Your task to perform on an android device: change the upload size in google photos Image 0: 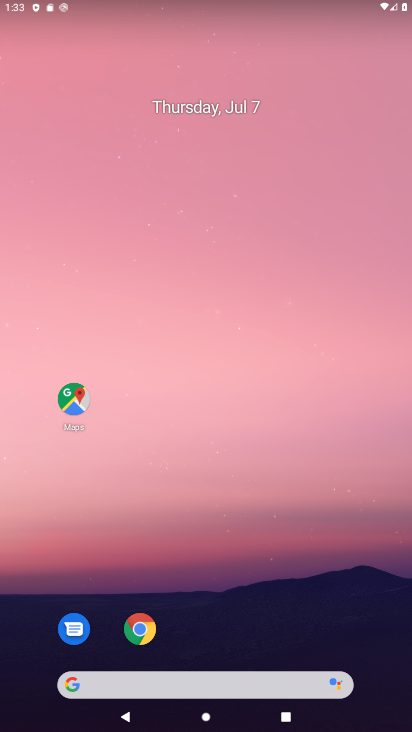
Step 0: drag from (335, 646) to (378, 147)
Your task to perform on an android device: change the upload size in google photos Image 1: 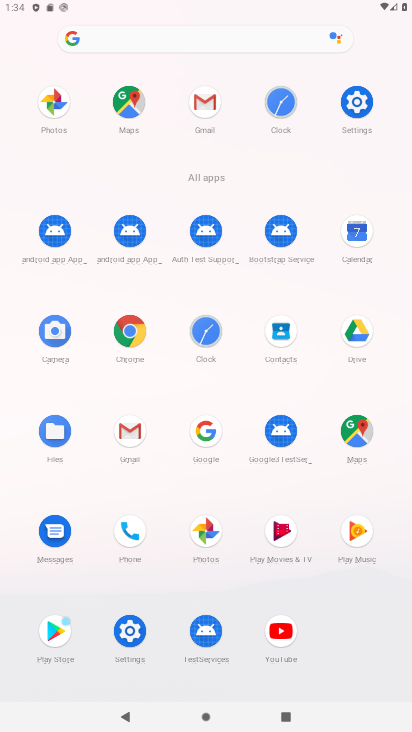
Step 1: click (206, 535)
Your task to perform on an android device: change the upload size in google photos Image 2: 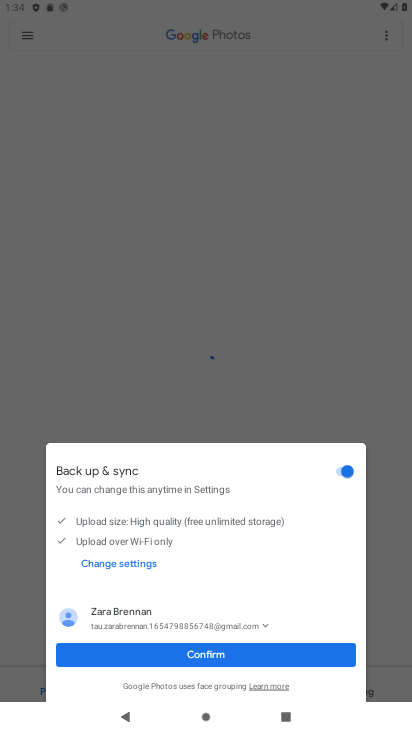
Step 2: click (230, 663)
Your task to perform on an android device: change the upload size in google photos Image 3: 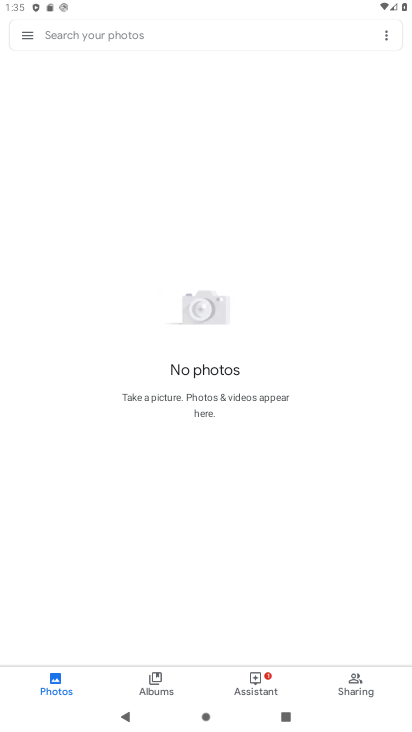
Step 3: click (32, 39)
Your task to perform on an android device: change the upload size in google photos Image 4: 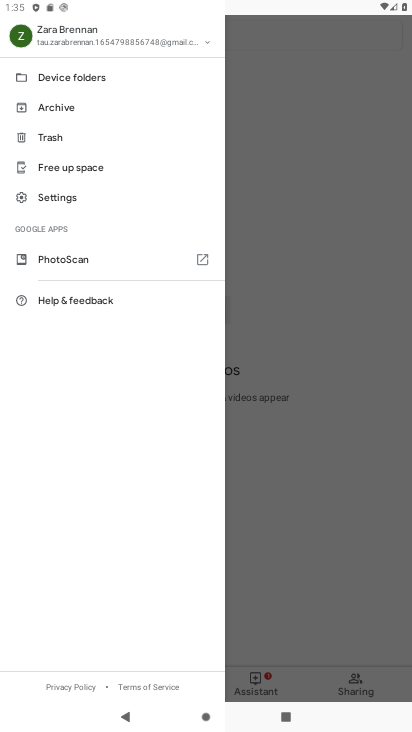
Step 4: click (78, 205)
Your task to perform on an android device: change the upload size in google photos Image 5: 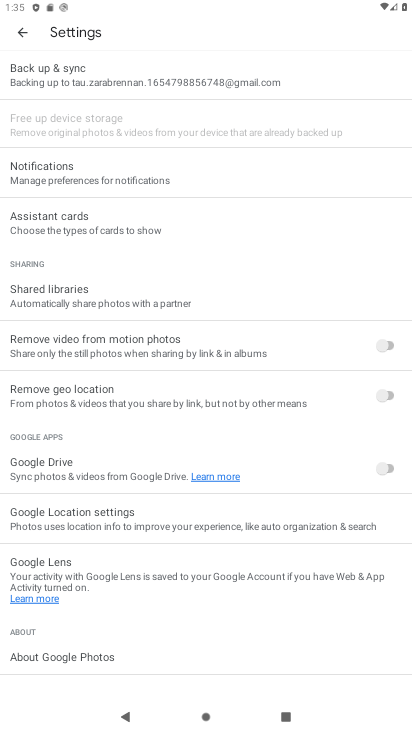
Step 5: click (154, 85)
Your task to perform on an android device: change the upload size in google photos Image 6: 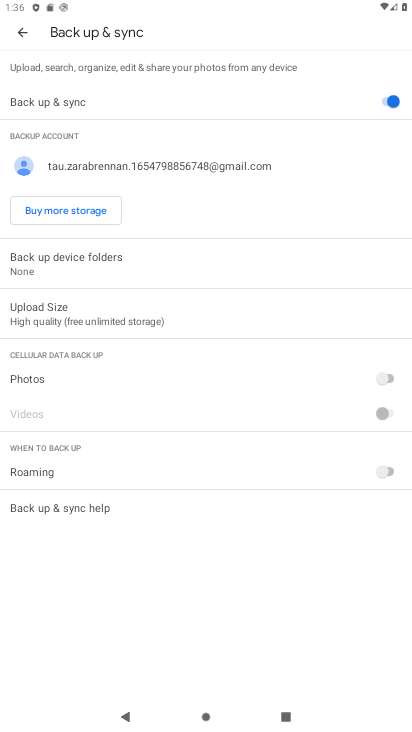
Step 6: click (52, 299)
Your task to perform on an android device: change the upload size in google photos Image 7: 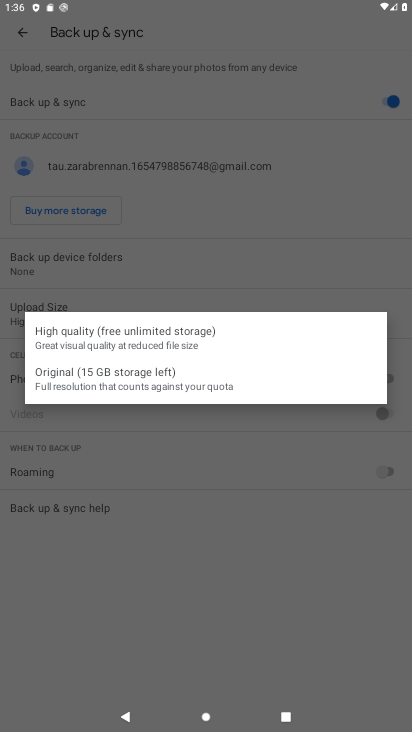
Step 7: click (76, 347)
Your task to perform on an android device: change the upload size in google photos Image 8: 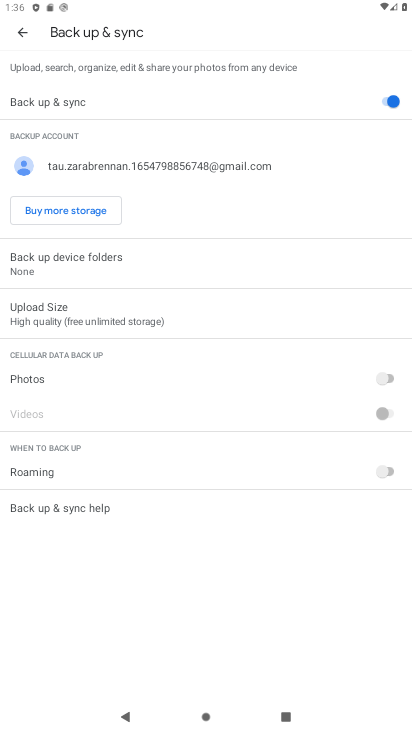
Step 8: click (99, 298)
Your task to perform on an android device: change the upload size in google photos Image 9: 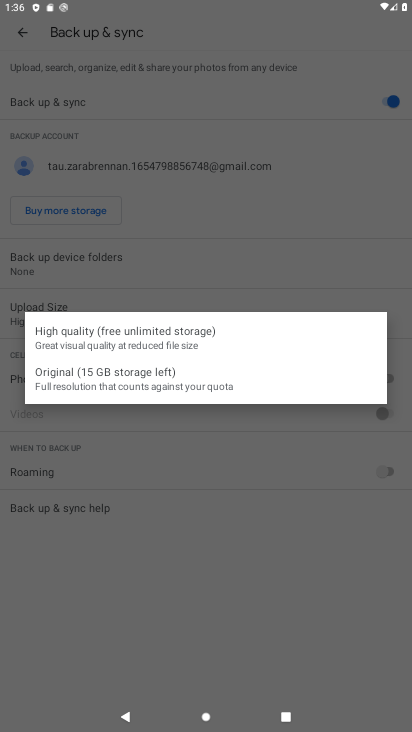
Step 9: click (116, 367)
Your task to perform on an android device: change the upload size in google photos Image 10: 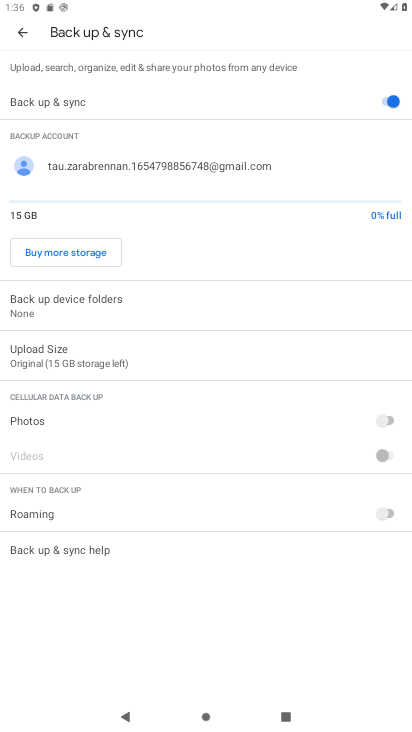
Step 10: task complete